Your task to perform on an android device: open device folders in google photos Image 0: 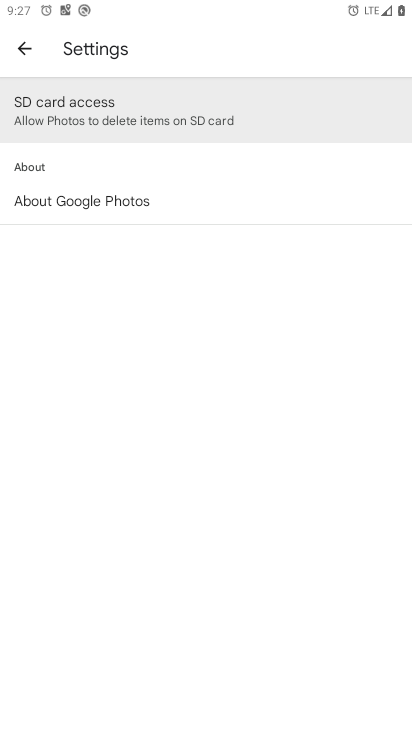
Step 0: press home button
Your task to perform on an android device: open device folders in google photos Image 1: 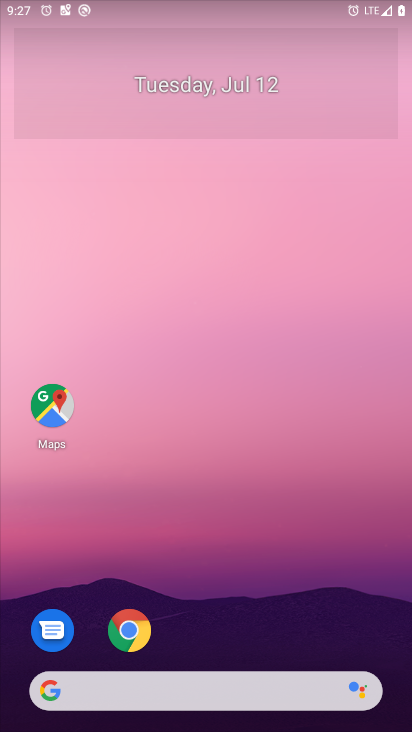
Step 1: drag from (294, 622) to (275, 140)
Your task to perform on an android device: open device folders in google photos Image 2: 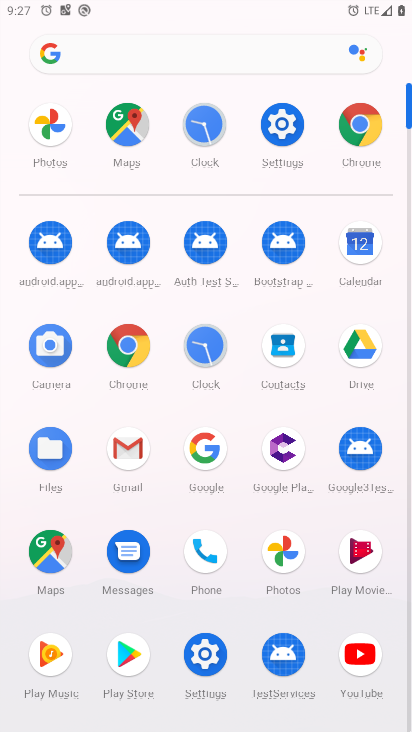
Step 2: click (279, 553)
Your task to perform on an android device: open device folders in google photos Image 3: 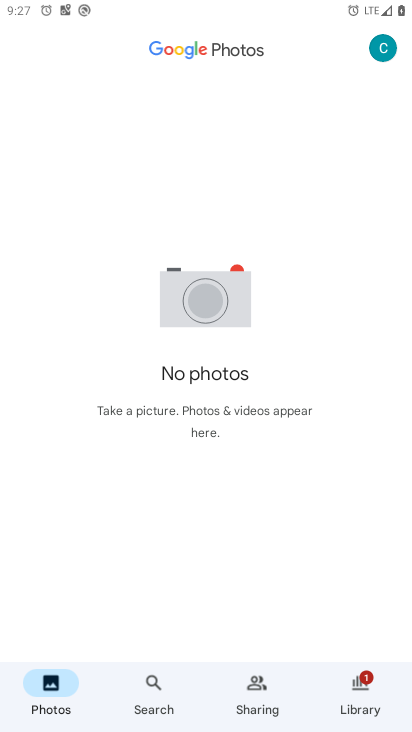
Step 3: click (45, 682)
Your task to perform on an android device: open device folders in google photos Image 4: 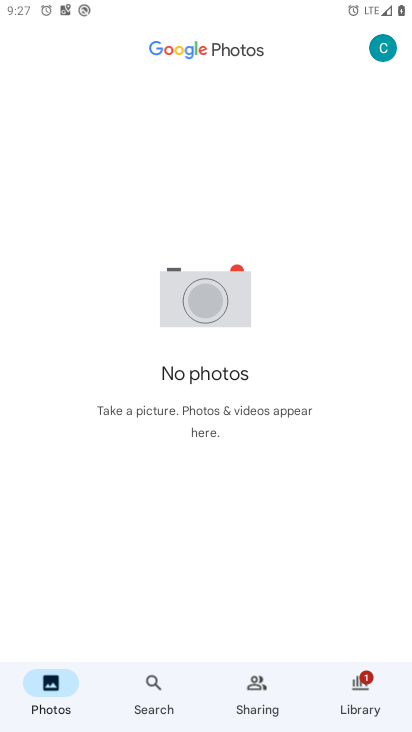
Step 4: click (161, 684)
Your task to perform on an android device: open device folders in google photos Image 5: 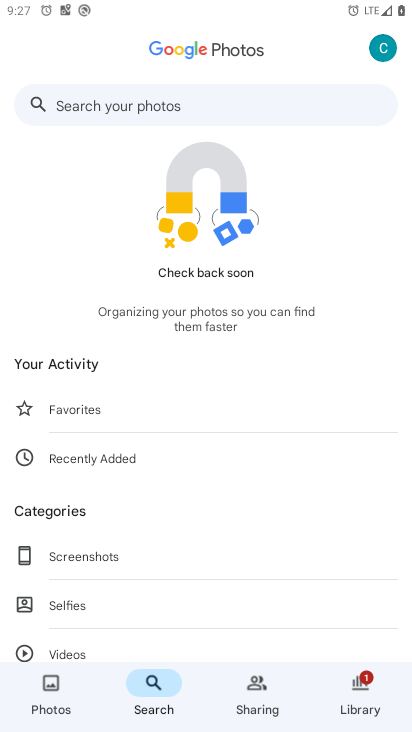
Step 5: click (163, 99)
Your task to perform on an android device: open device folders in google photos Image 6: 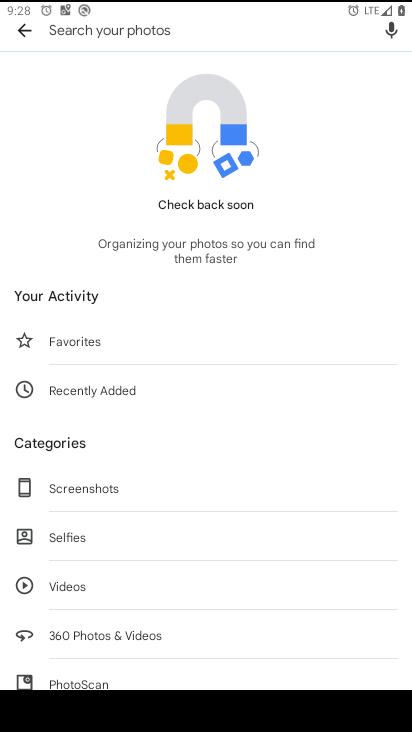
Step 6: type "device folders"
Your task to perform on an android device: open device folders in google photos Image 7: 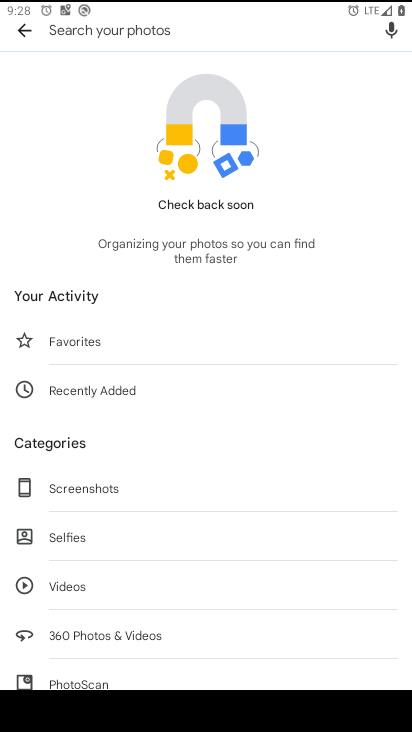
Step 7: click (141, 30)
Your task to perform on an android device: open device folders in google photos Image 8: 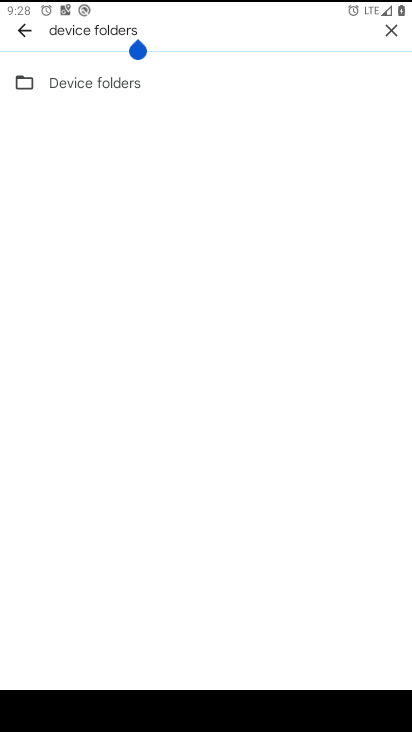
Step 8: click (116, 80)
Your task to perform on an android device: open device folders in google photos Image 9: 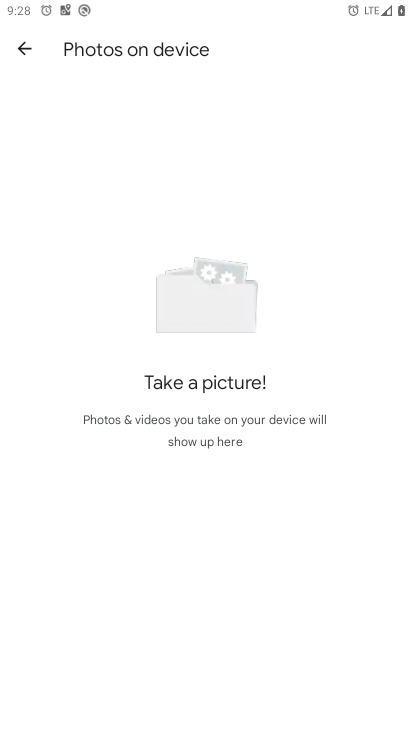
Step 9: task complete